Your task to perform on an android device: see sites visited before in the chrome app Image 0: 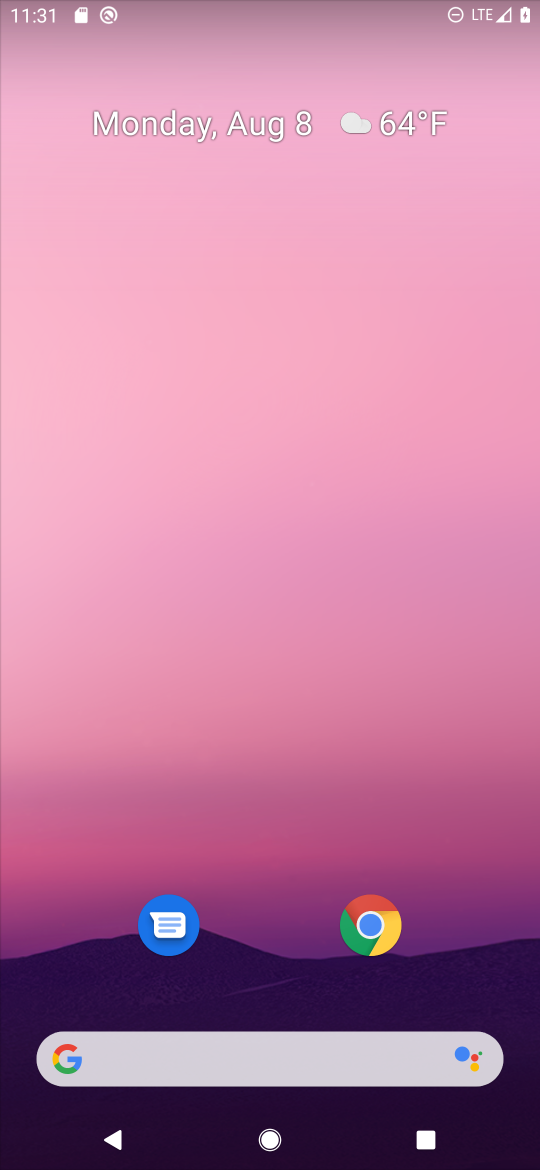
Step 0: drag from (241, 854) to (274, 158)
Your task to perform on an android device: see sites visited before in the chrome app Image 1: 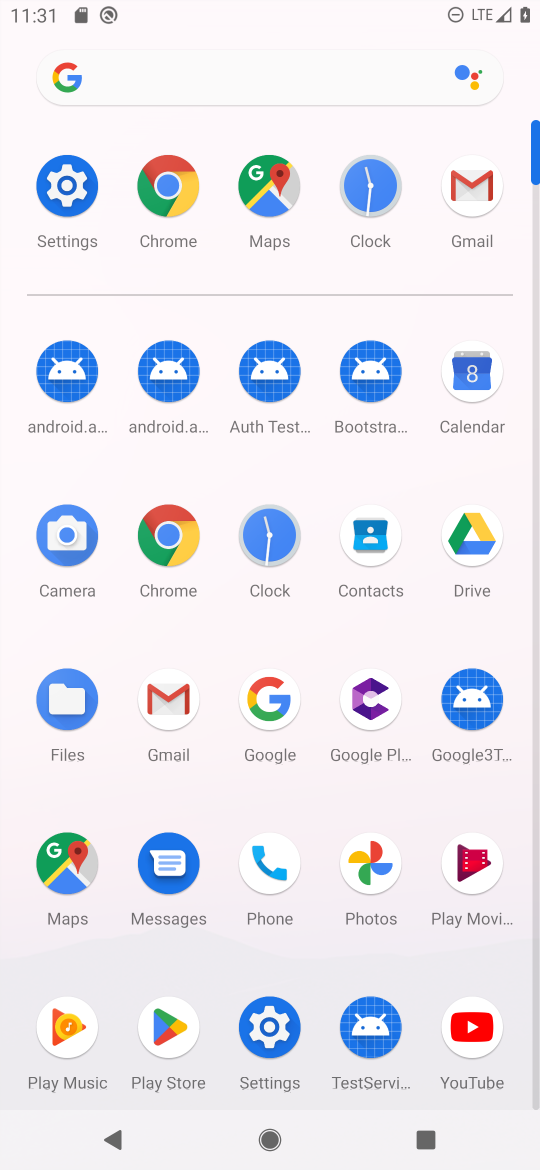
Step 1: click (174, 535)
Your task to perform on an android device: see sites visited before in the chrome app Image 2: 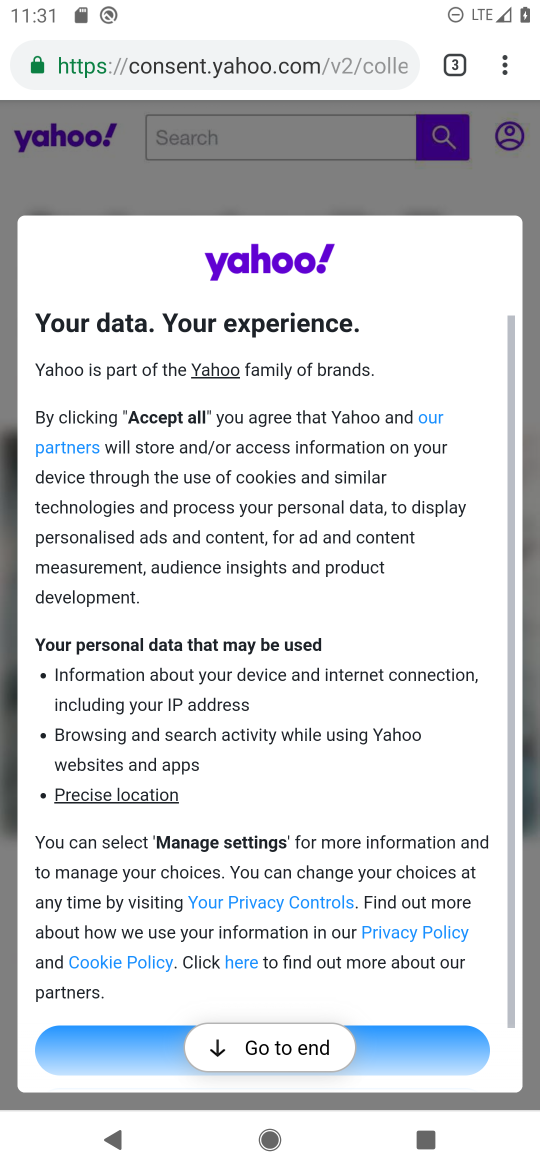
Step 2: task complete